Your task to perform on an android device: toggle improve location accuracy Image 0: 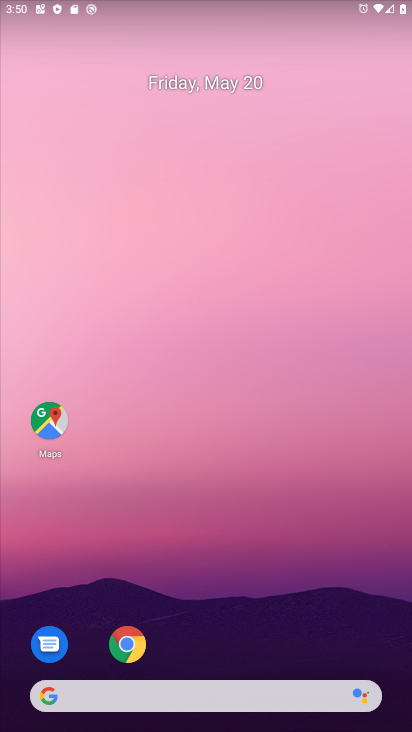
Step 0: drag from (330, 626) to (221, 191)
Your task to perform on an android device: toggle improve location accuracy Image 1: 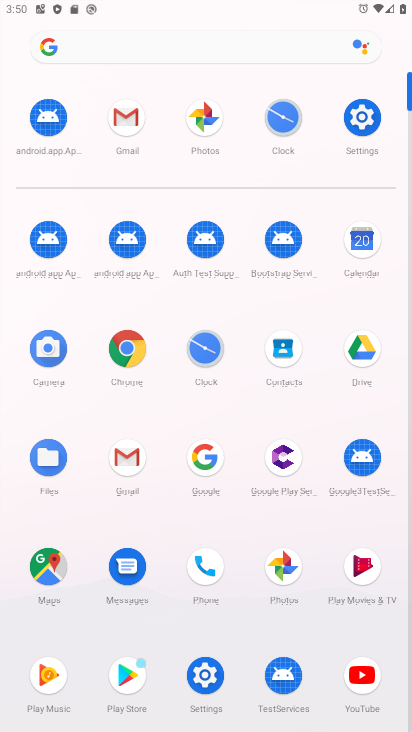
Step 1: click (353, 145)
Your task to perform on an android device: toggle improve location accuracy Image 2: 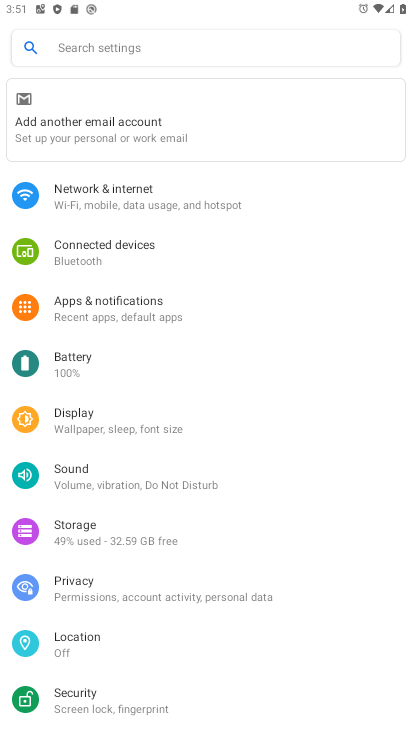
Step 2: click (135, 646)
Your task to perform on an android device: toggle improve location accuracy Image 3: 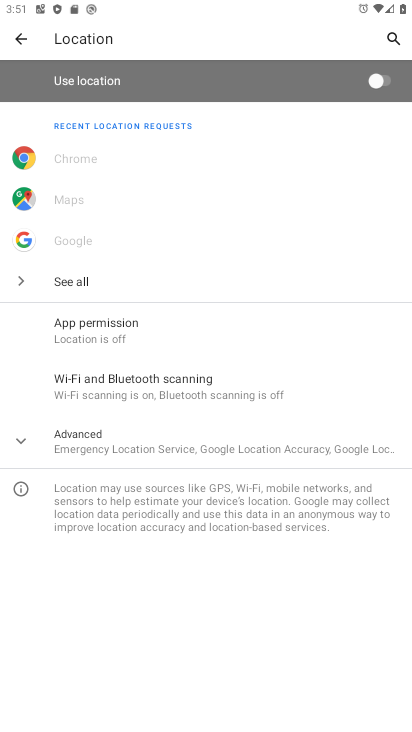
Step 3: task complete